Your task to perform on an android device: Search for sushi restaurants on Maps Image 0: 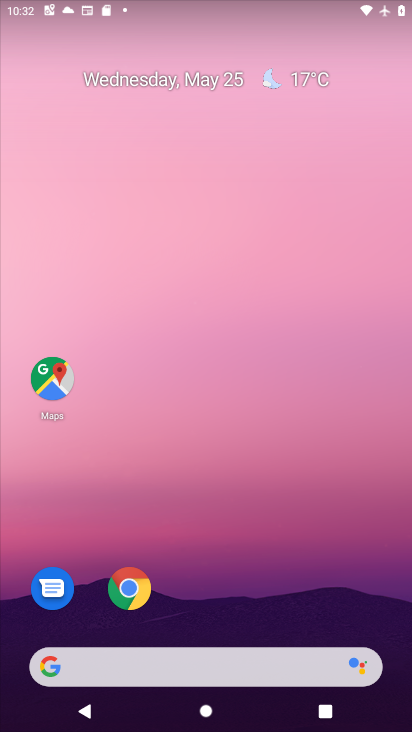
Step 0: drag from (343, 617) to (326, 80)
Your task to perform on an android device: Search for sushi restaurants on Maps Image 1: 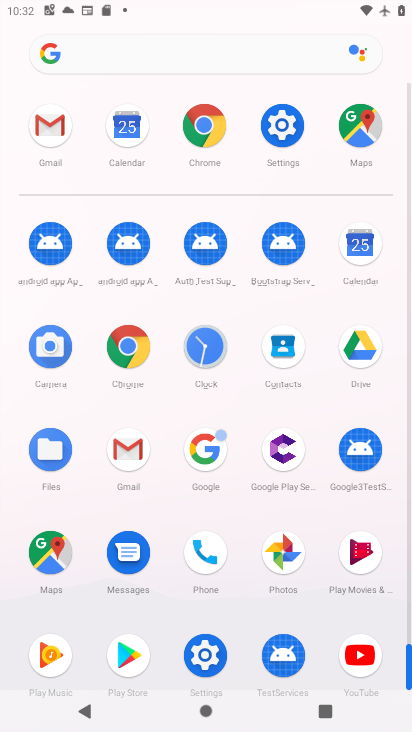
Step 1: click (61, 564)
Your task to perform on an android device: Search for sushi restaurants on Maps Image 2: 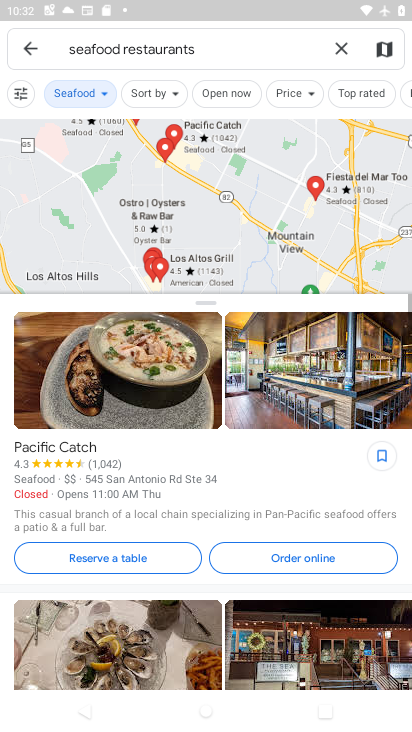
Step 2: click (347, 48)
Your task to perform on an android device: Search for sushi restaurants on Maps Image 3: 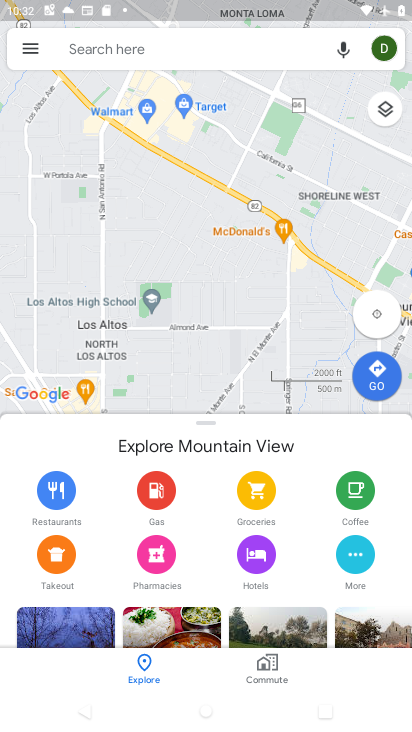
Step 3: click (222, 58)
Your task to perform on an android device: Search for sushi restaurants on Maps Image 4: 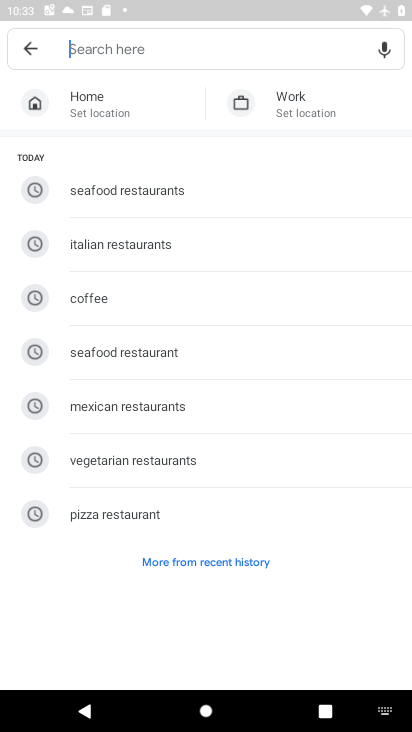
Step 4: type "sushil restaurants"
Your task to perform on an android device: Search for sushi restaurants on Maps Image 5: 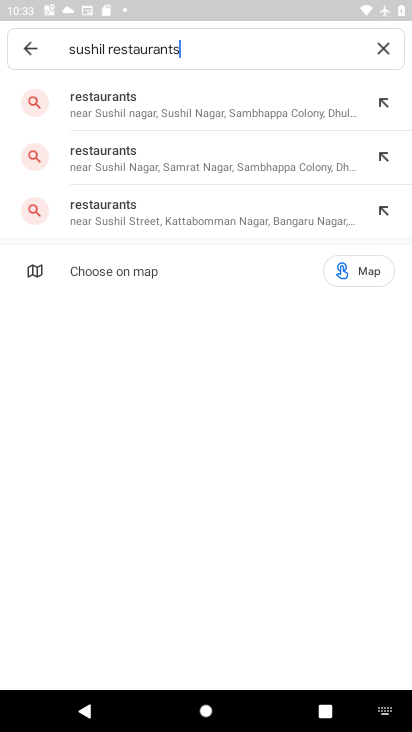
Step 5: click (180, 100)
Your task to perform on an android device: Search for sushi restaurants on Maps Image 6: 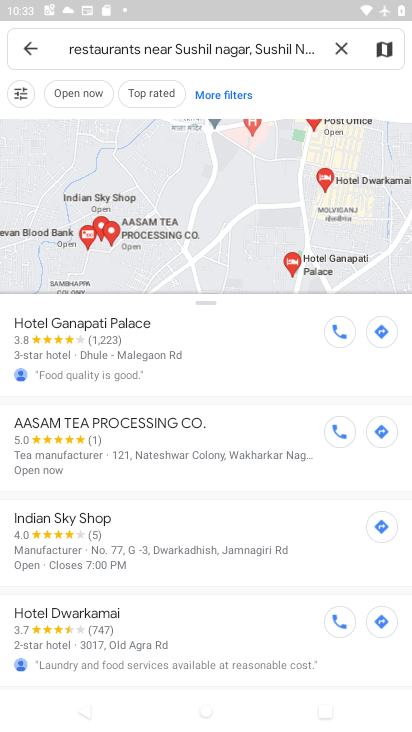
Step 6: task complete